Your task to perform on an android device: Go to sound settings Image 0: 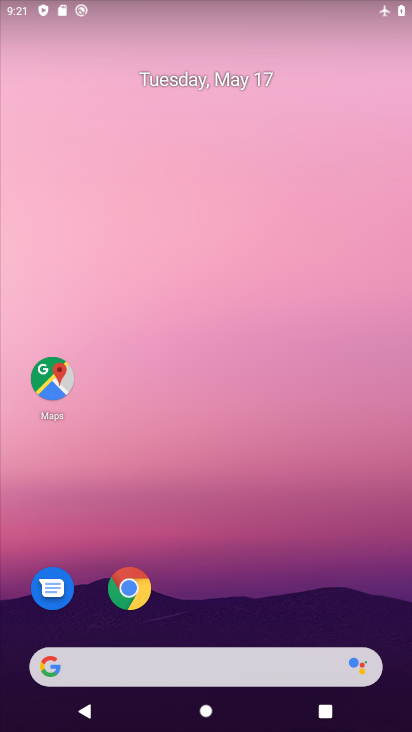
Step 0: drag from (219, 723) to (223, 259)
Your task to perform on an android device: Go to sound settings Image 1: 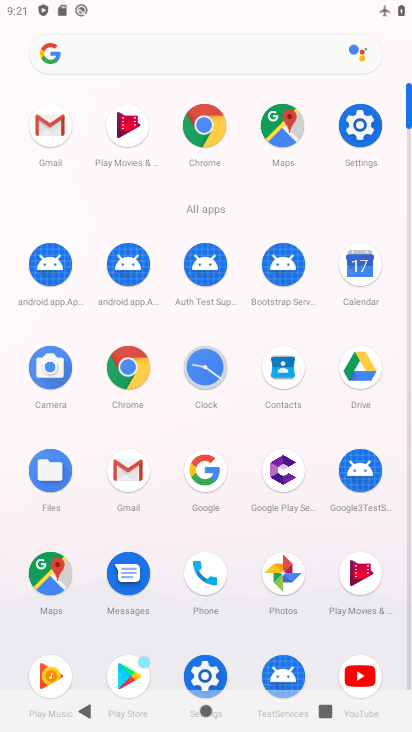
Step 1: click (363, 123)
Your task to perform on an android device: Go to sound settings Image 2: 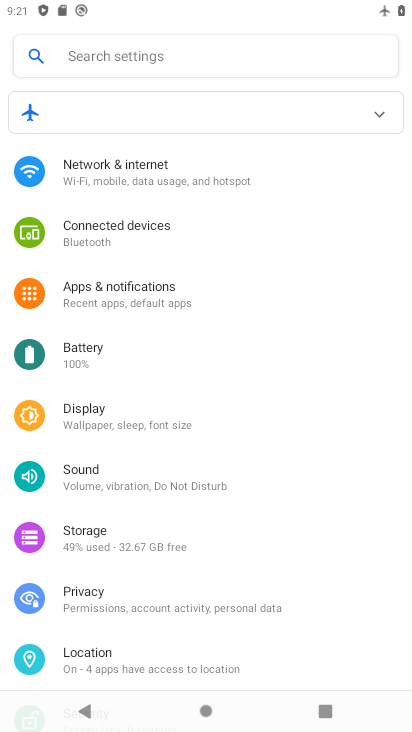
Step 2: click (89, 475)
Your task to perform on an android device: Go to sound settings Image 3: 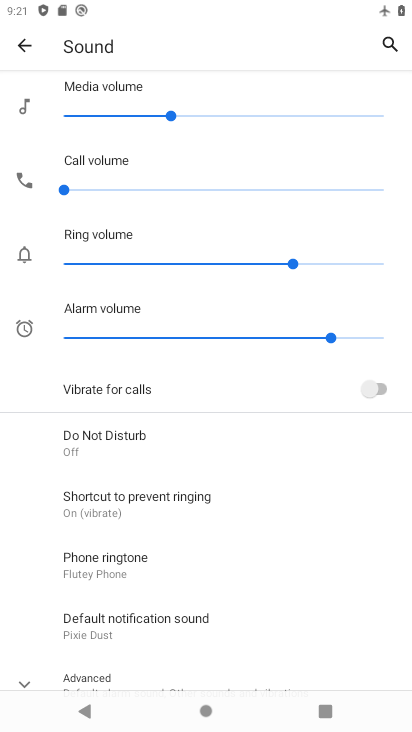
Step 3: task complete